Your task to perform on an android device: turn on airplane mode Image 0: 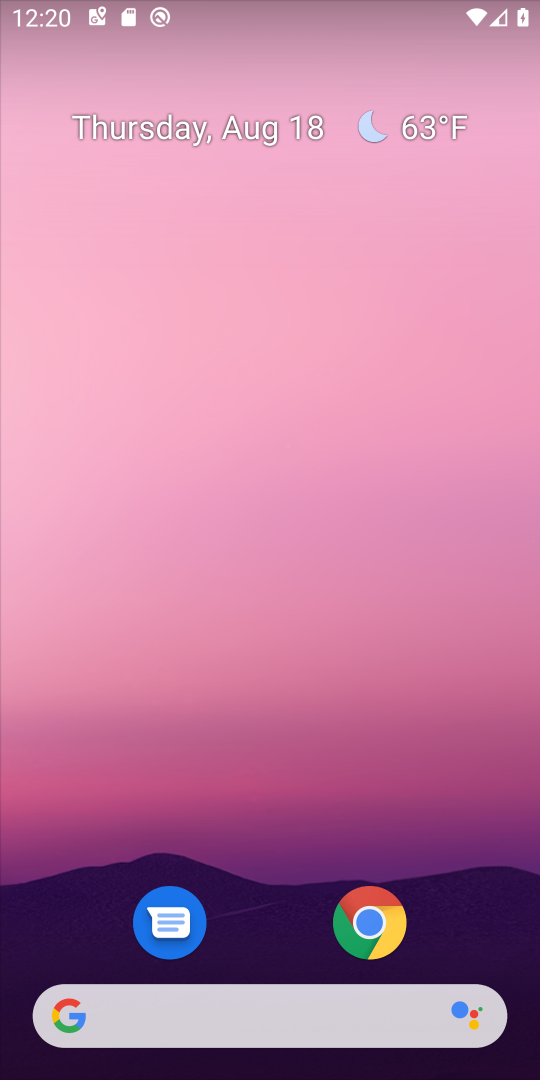
Step 0: drag from (255, 893) to (238, 311)
Your task to perform on an android device: turn on airplane mode Image 1: 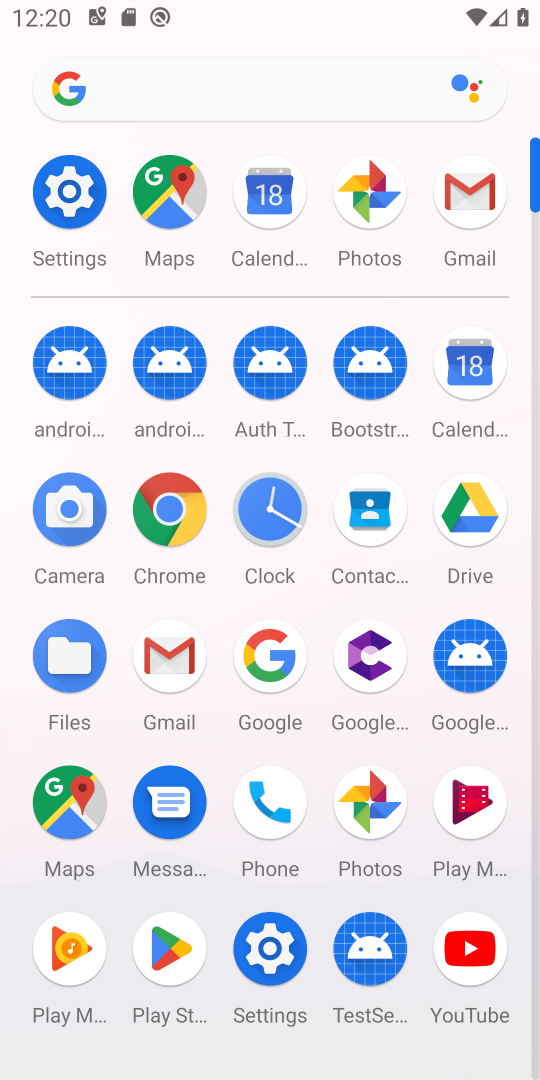
Step 1: click (66, 191)
Your task to perform on an android device: turn on airplane mode Image 2: 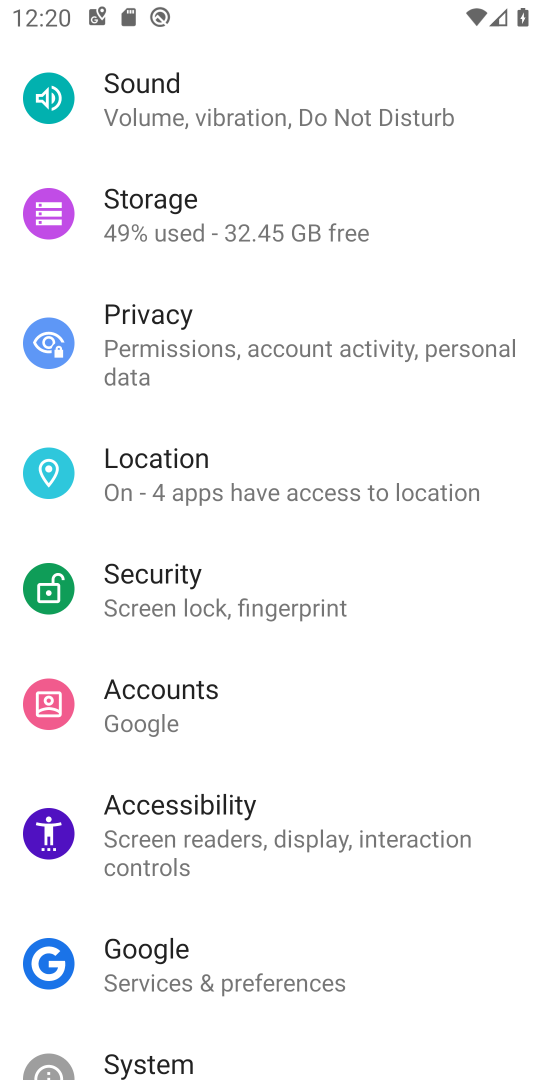
Step 2: drag from (220, 178) to (243, 553)
Your task to perform on an android device: turn on airplane mode Image 3: 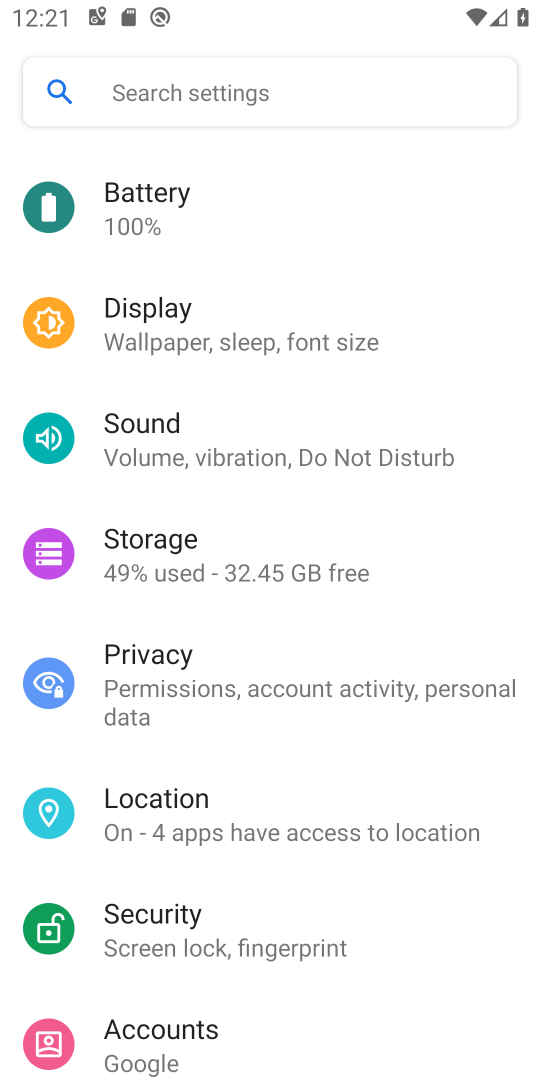
Step 3: drag from (240, 257) to (265, 830)
Your task to perform on an android device: turn on airplane mode Image 4: 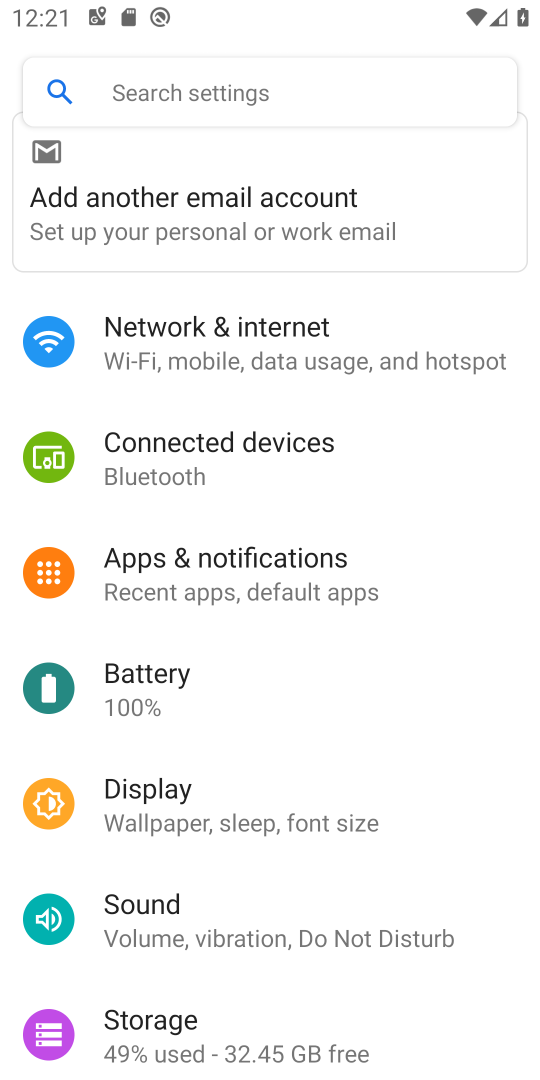
Step 4: click (227, 329)
Your task to perform on an android device: turn on airplane mode Image 5: 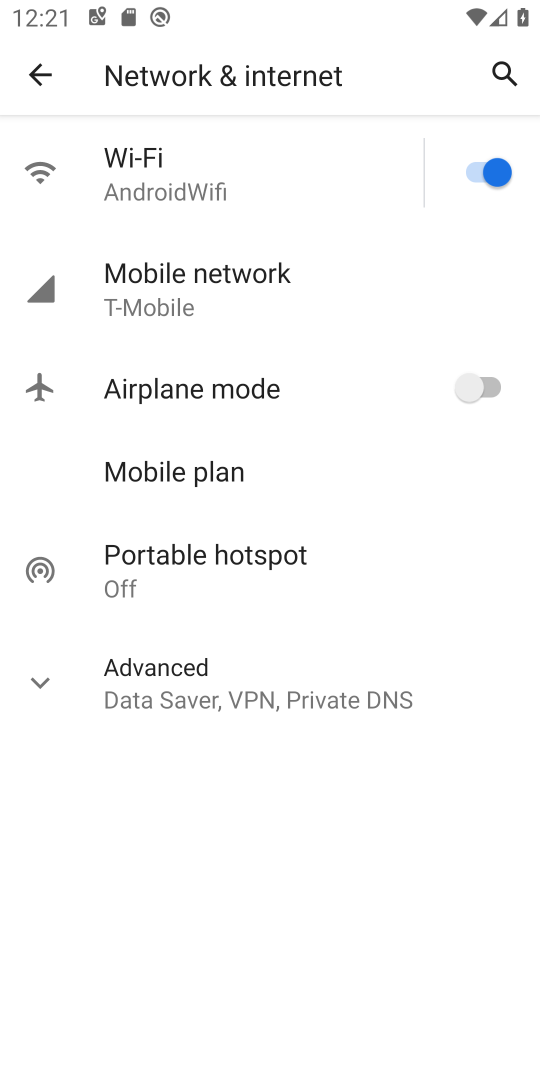
Step 5: click (470, 392)
Your task to perform on an android device: turn on airplane mode Image 6: 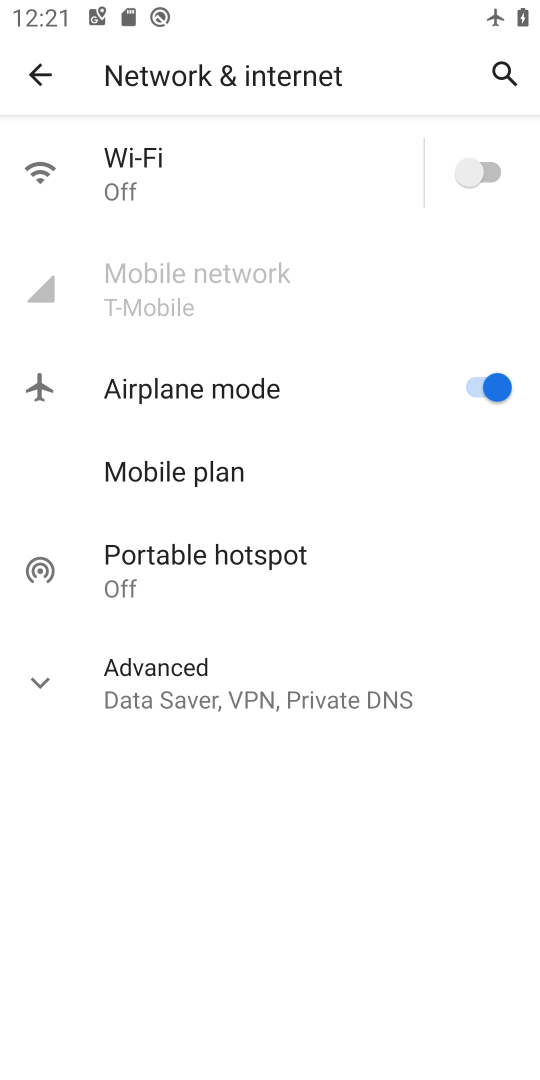
Step 6: task complete